Your task to perform on an android device: Open the web browser Image 0: 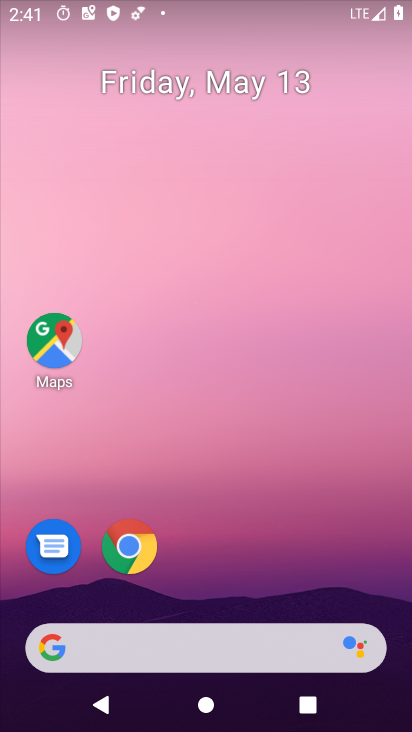
Step 0: drag from (253, 626) to (318, 64)
Your task to perform on an android device: Open the web browser Image 1: 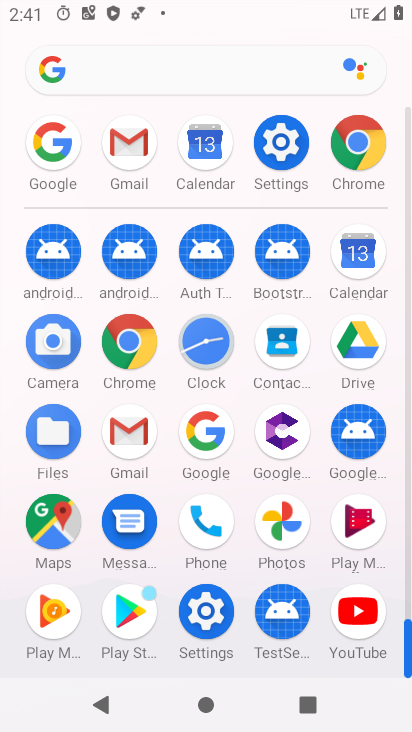
Step 1: click (351, 163)
Your task to perform on an android device: Open the web browser Image 2: 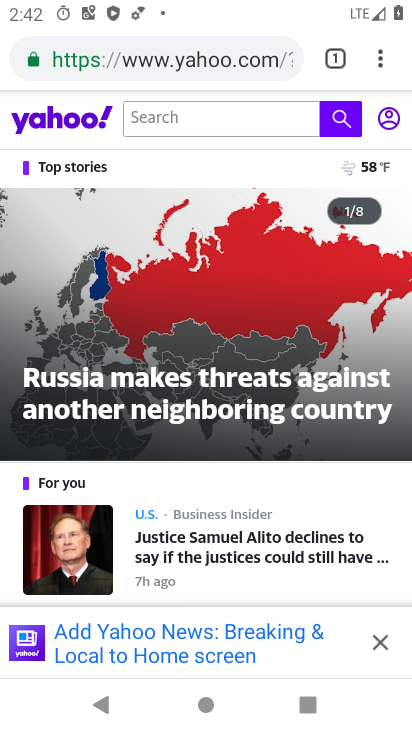
Step 2: click (384, 72)
Your task to perform on an android device: Open the web browser Image 3: 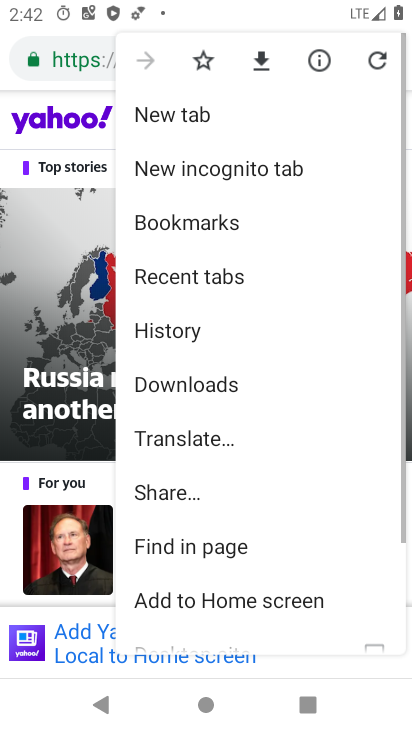
Step 3: task complete